Your task to perform on an android device: Go to ESPN.com Image 0: 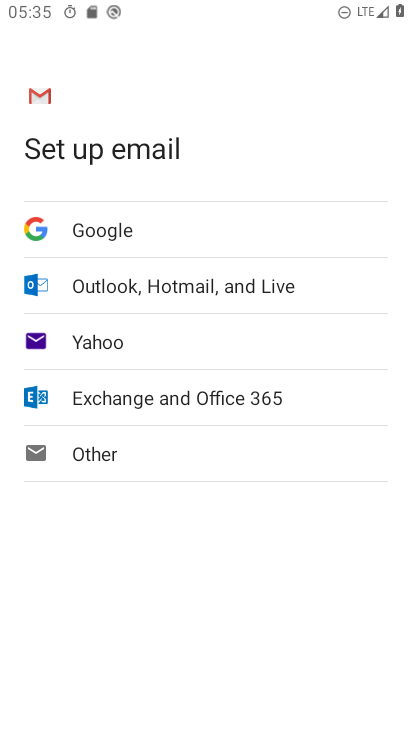
Step 0: press back button
Your task to perform on an android device: Go to ESPN.com Image 1: 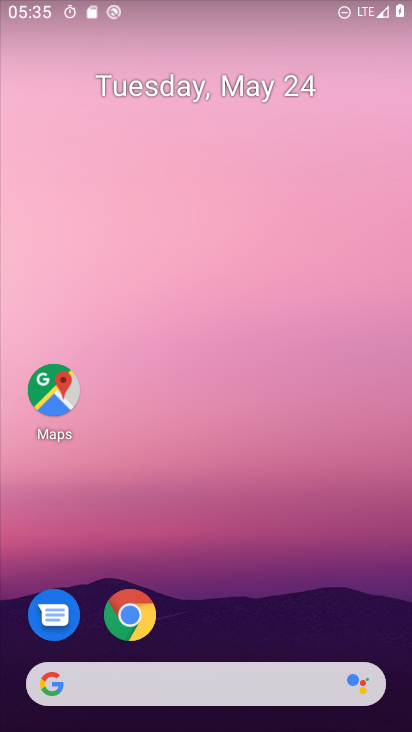
Step 1: click (126, 615)
Your task to perform on an android device: Go to ESPN.com Image 2: 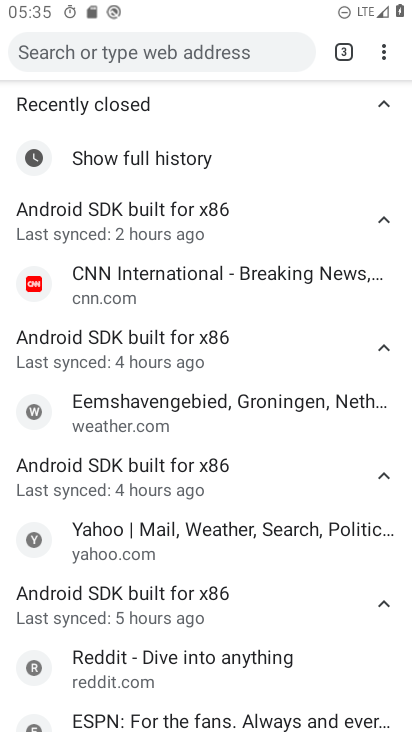
Step 2: click (354, 56)
Your task to perform on an android device: Go to ESPN.com Image 3: 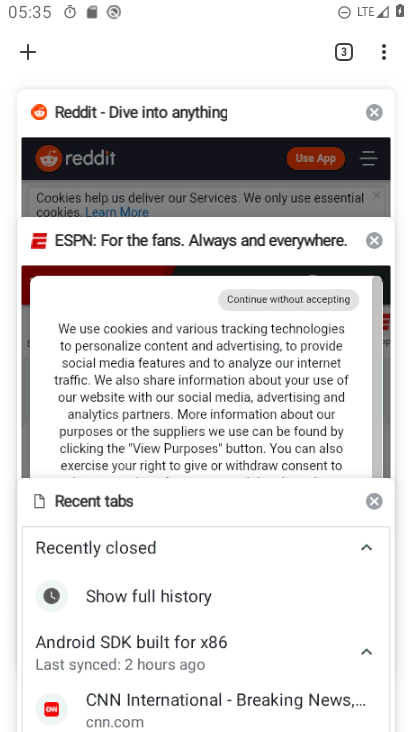
Step 3: click (102, 268)
Your task to perform on an android device: Go to ESPN.com Image 4: 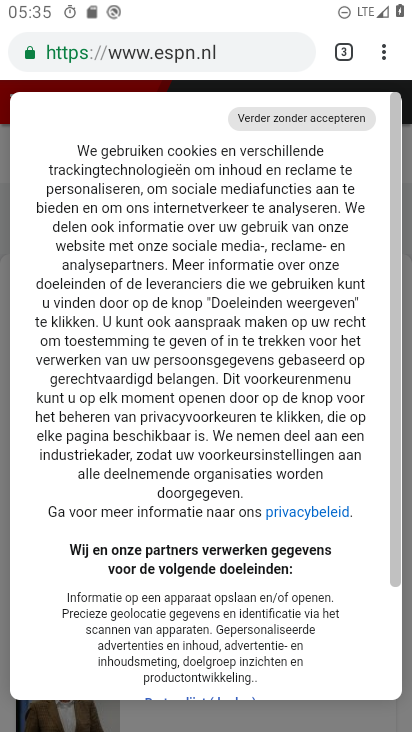
Step 4: task complete